Your task to perform on an android device: What time is it in San Francisco? Image 0: 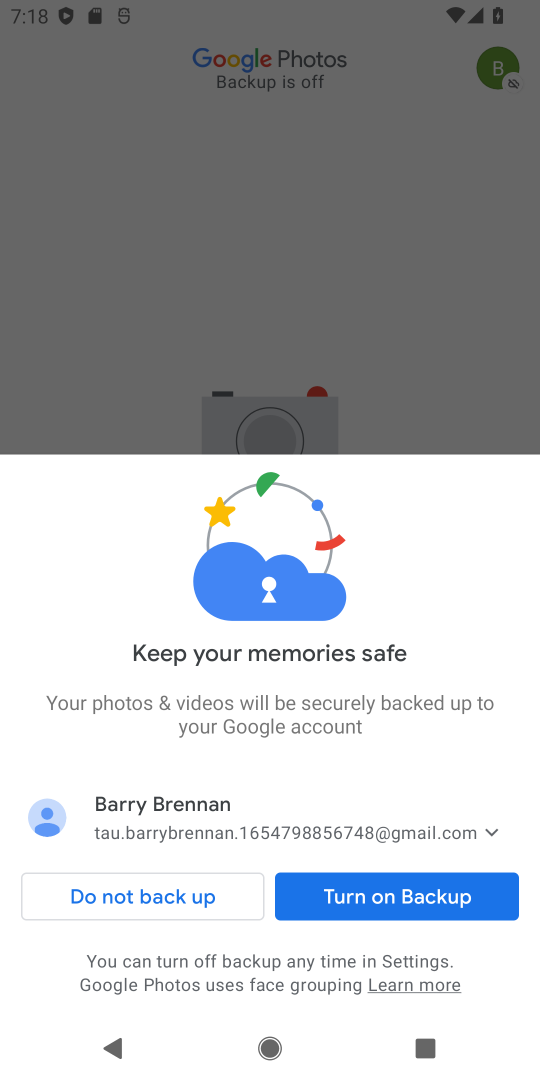
Step 0: press home button
Your task to perform on an android device: What time is it in San Francisco? Image 1: 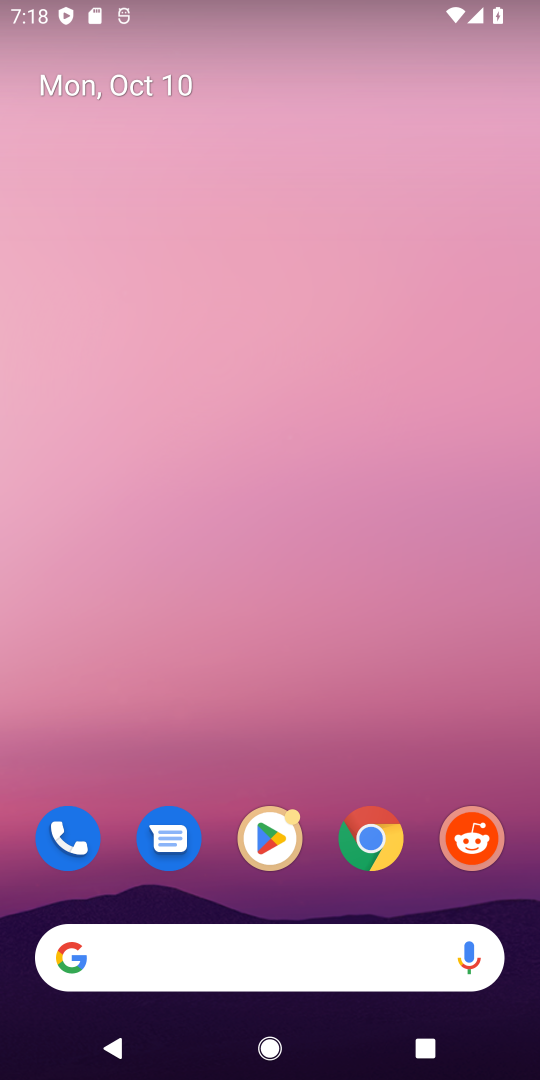
Step 1: click (372, 831)
Your task to perform on an android device: What time is it in San Francisco? Image 2: 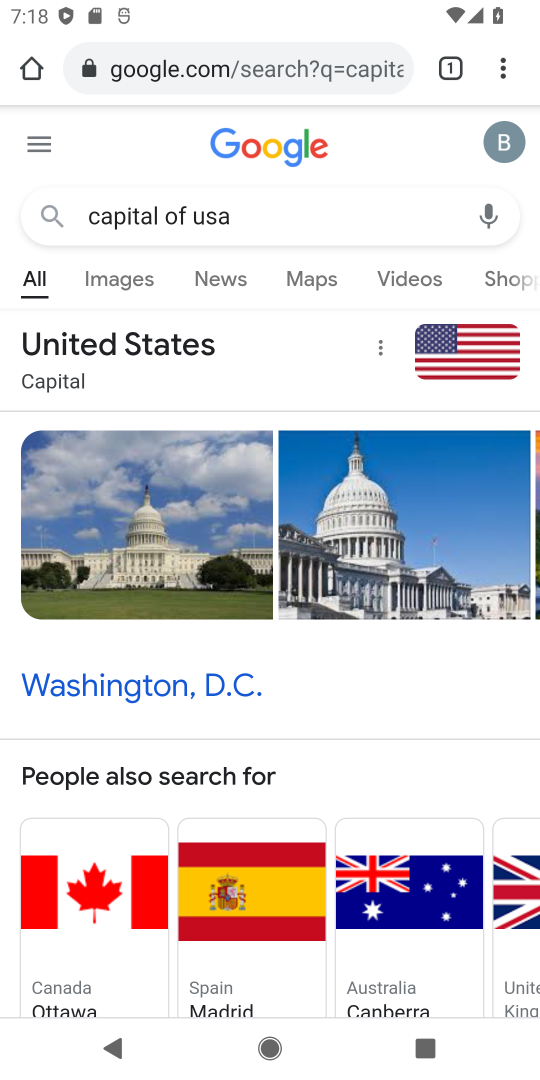
Step 2: click (254, 50)
Your task to perform on an android device: What time is it in San Francisco? Image 3: 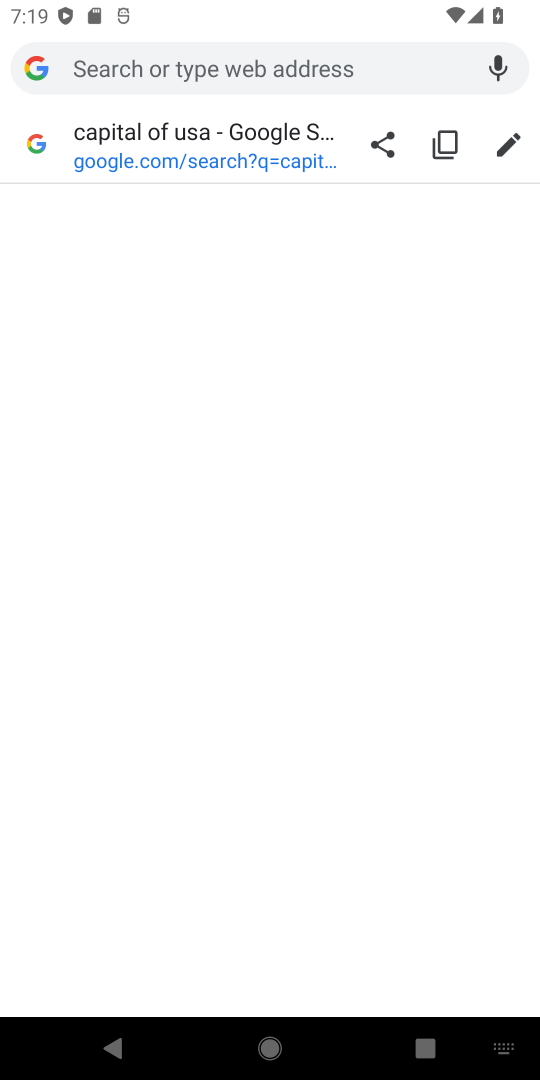
Step 3: type "time in san francisco?"
Your task to perform on an android device: What time is it in San Francisco? Image 4: 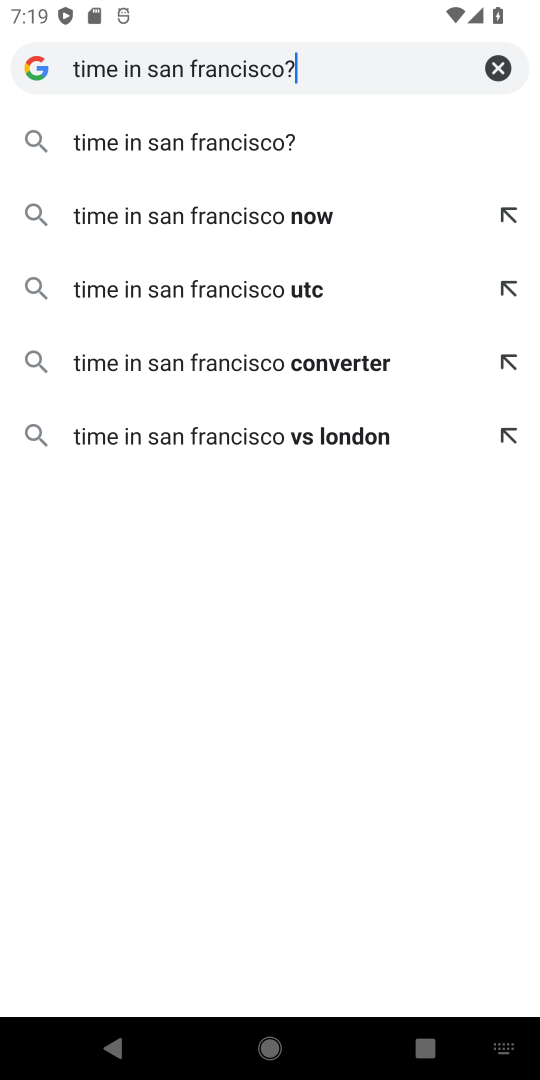
Step 4: click (196, 153)
Your task to perform on an android device: What time is it in San Francisco? Image 5: 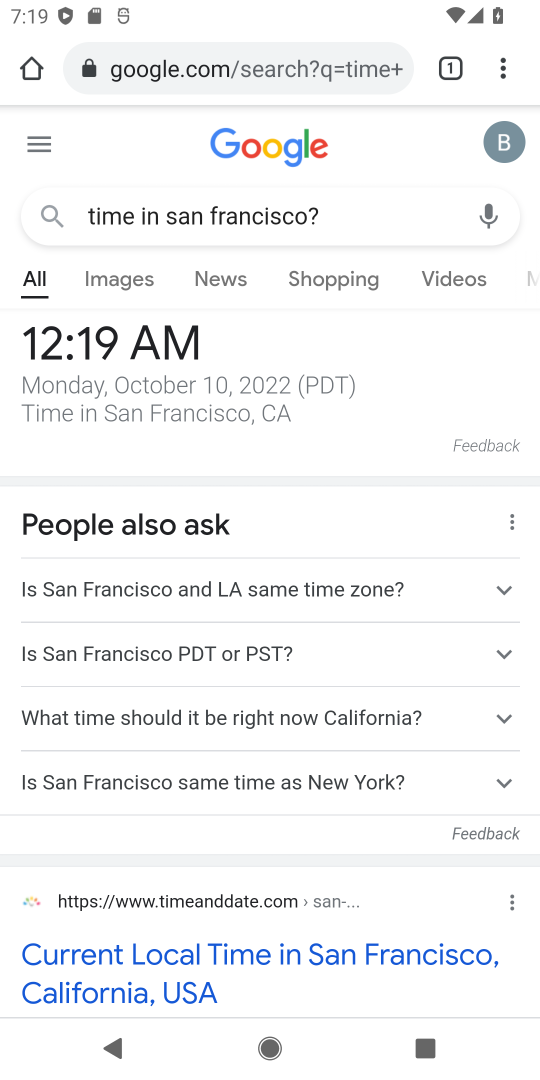
Step 5: task complete